Your task to perform on an android device: Open Amazon Image 0: 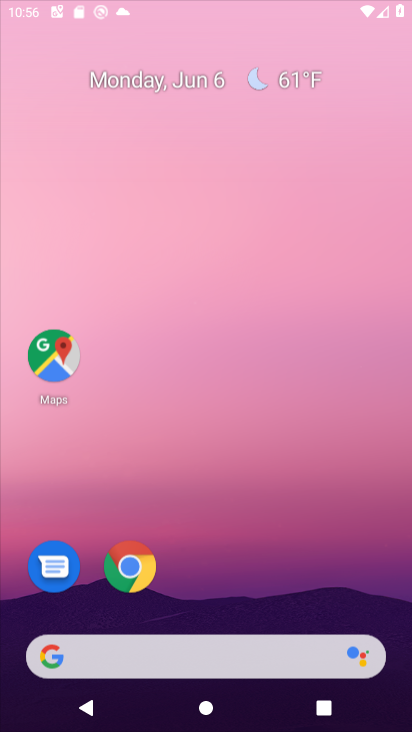
Step 0: click (195, 8)
Your task to perform on an android device: Open Amazon Image 1: 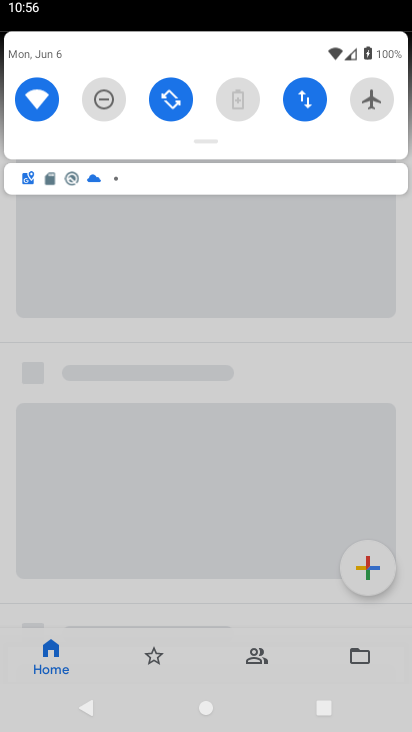
Step 1: press home button
Your task to perform on an android device: Open Amazon Image 2: 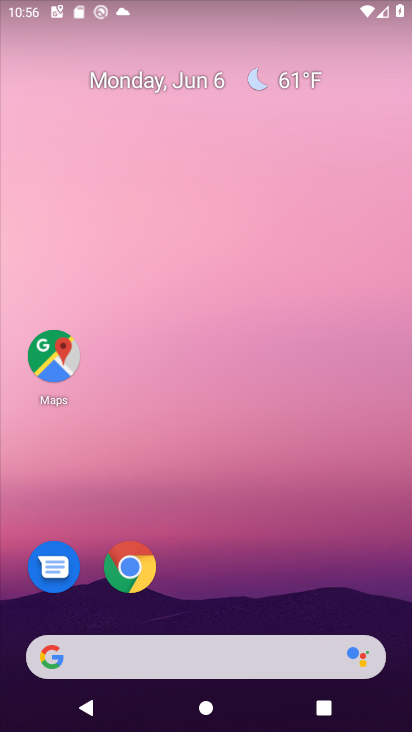
Step 2: click (129, 571)
Your task to perform on an android device: Open Amazon Image 3: 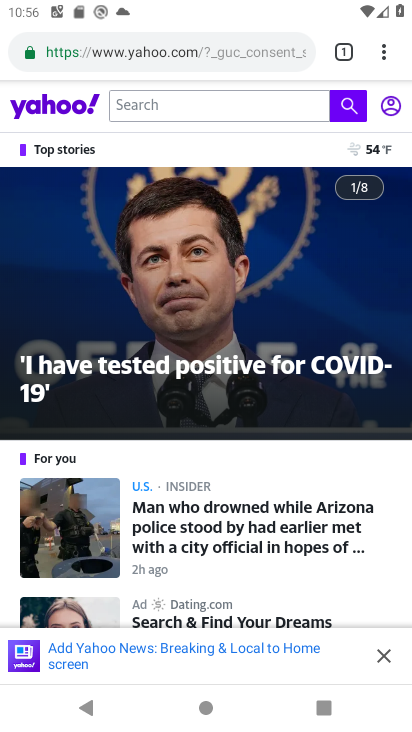
Step 3: click (382, 53)
Your task to perform on an android device: Open Amazon Image 4: 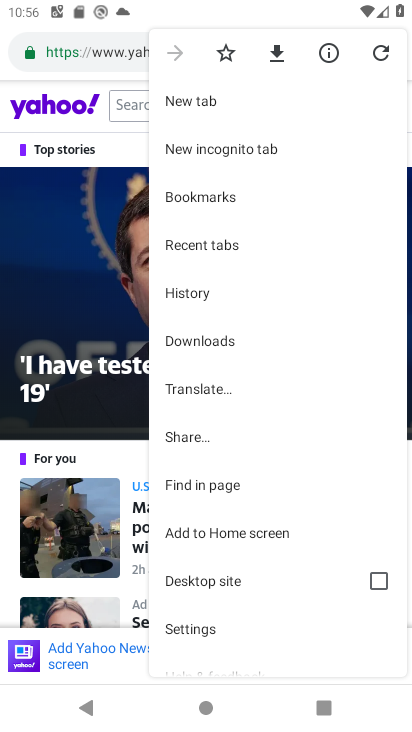
Step 4: click (190, 102)
Your task to perform on an android device: Open Amazon Image 5: 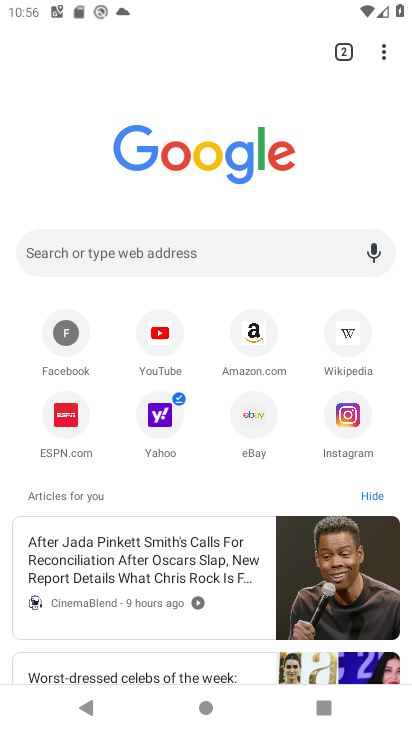
Step 5: click (247, 344)
Your task to perform on an android device: Open Amazon Image 6: 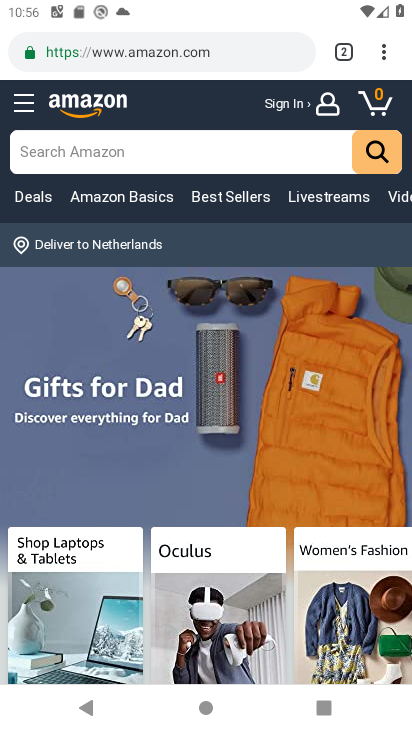
Step 6: task complete